Your task to perform on an android device: install app "DoorDash - Dasher" Image 0: 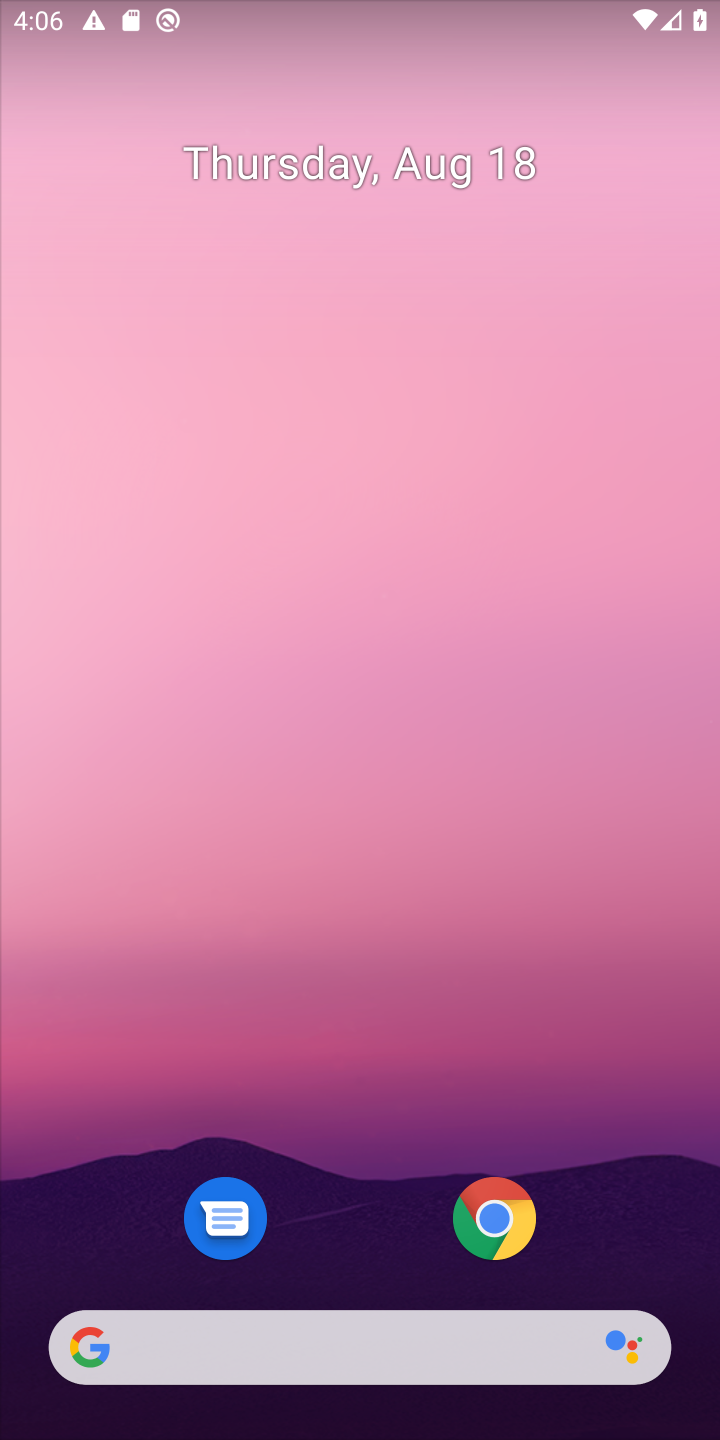
Step 0: drag from (325, 860) to (325, 487)
Your task to perform on an android device: install app "DoorDash - Dasher" Image 1: 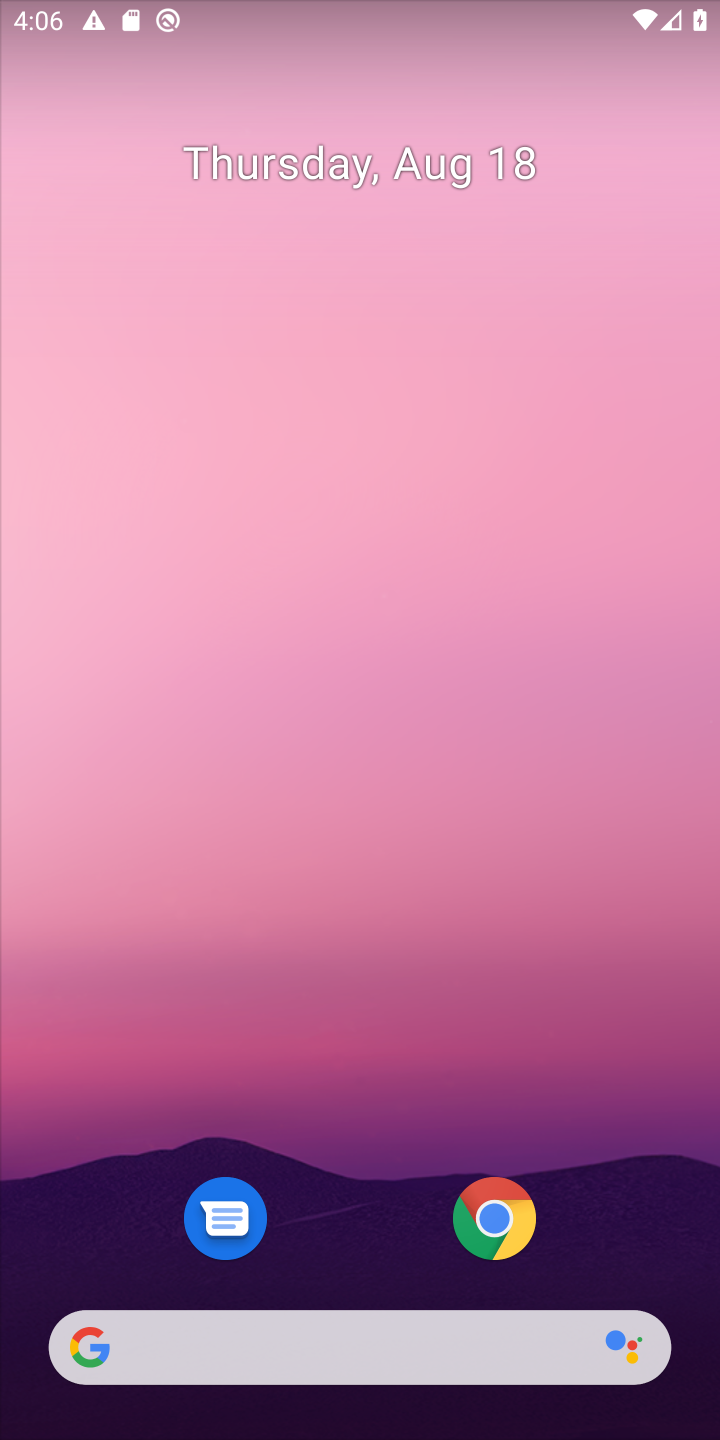
Step 1: drag from (310, 608) to (310, 236)
Your task to perform on an android device: install app "DoorDash - Dasher" Image 2: 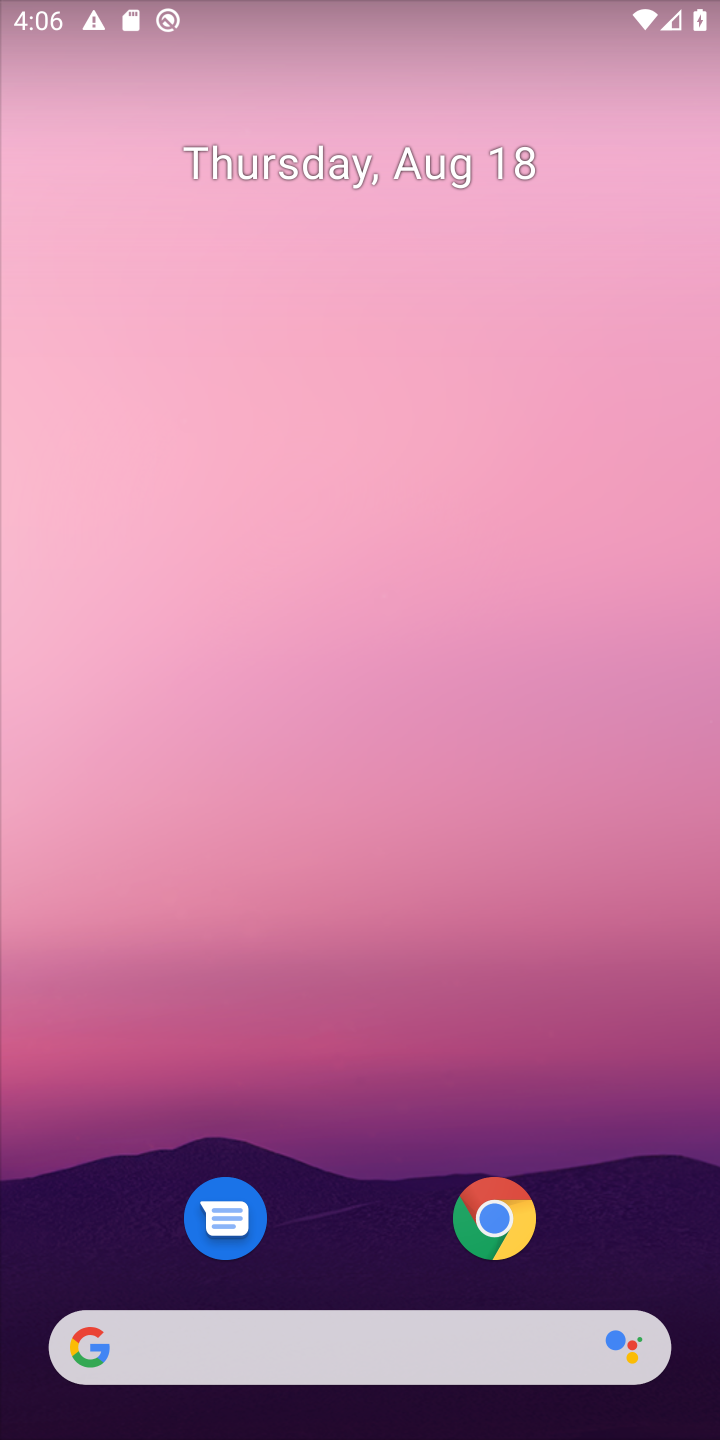
Step 2: drag from (371, 1159) to (385, 13)
Your task to perform on an android device: install app "DoorDash - Dasher" Image 3: 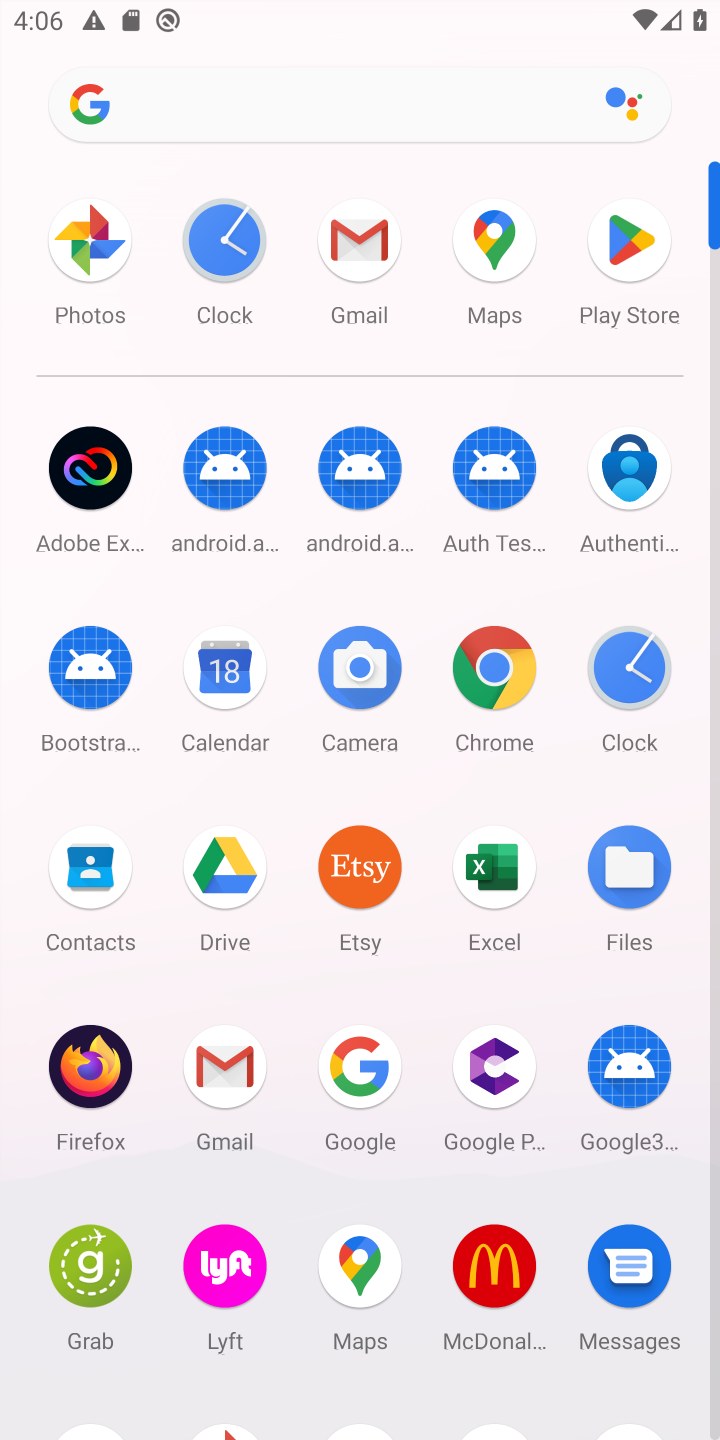
Step 3: click (593, 244)
Your task to perform on an android device: install app "DoorDash - Dasher" Image 4: 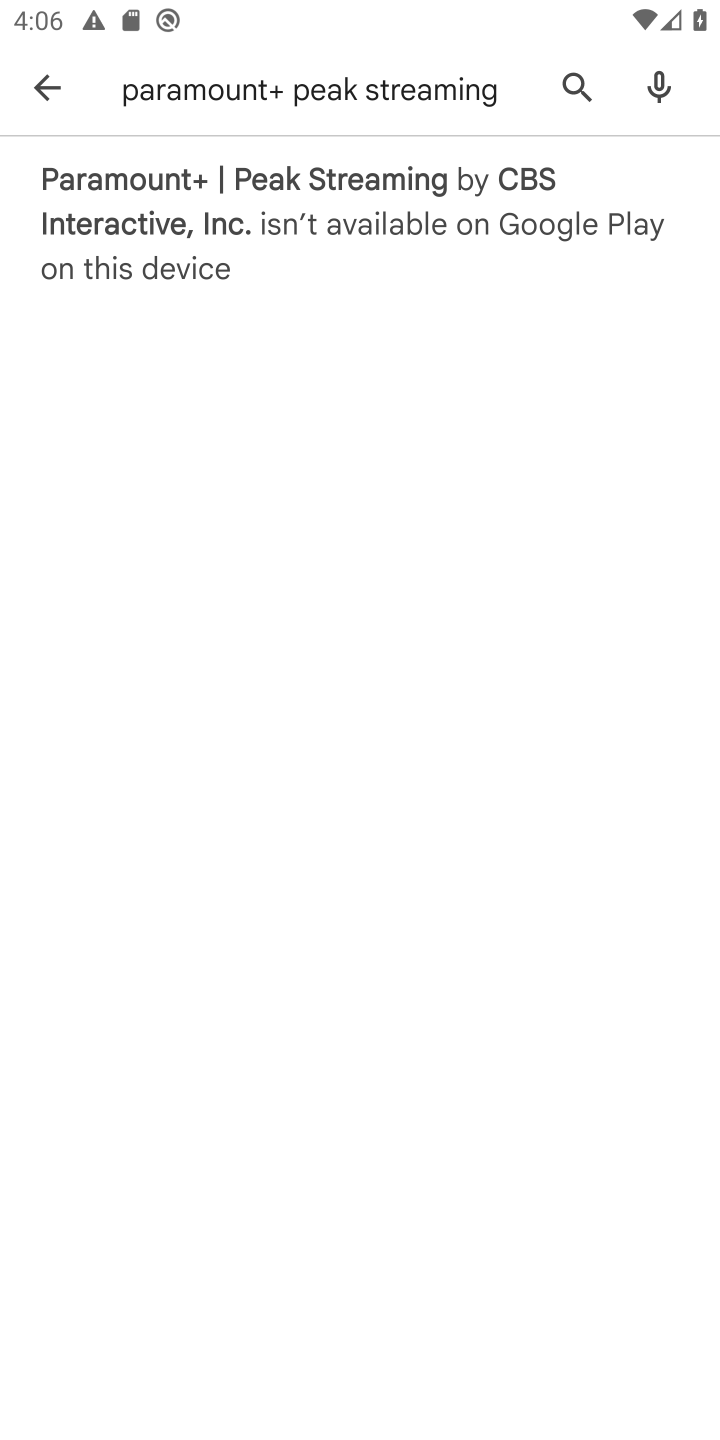
Step 4: click (551, 80)
Your task to perform on an android device: install app "DoorDash - Dasher" Image 5: 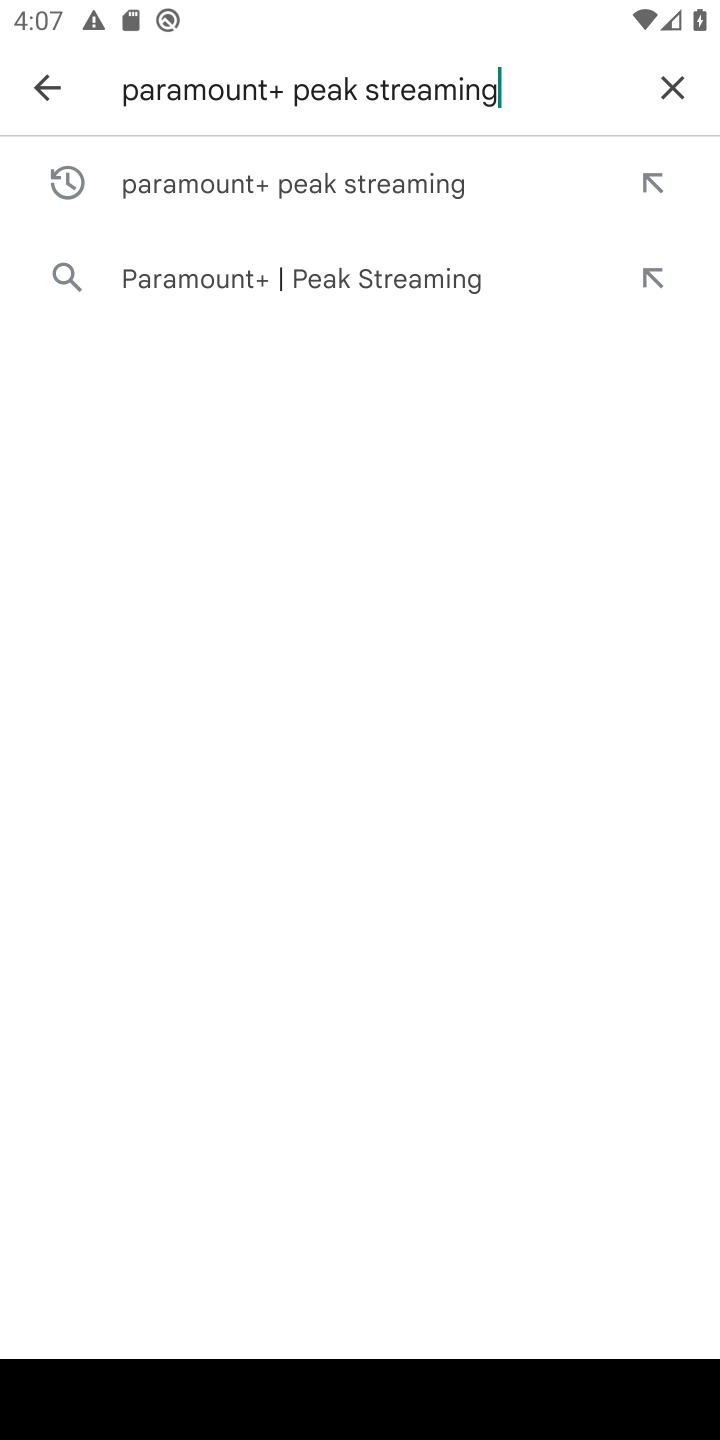
Step 5: click (661, 92)
Your task to perform on an android device: install app "DoorDash - Dasher" Image 6: 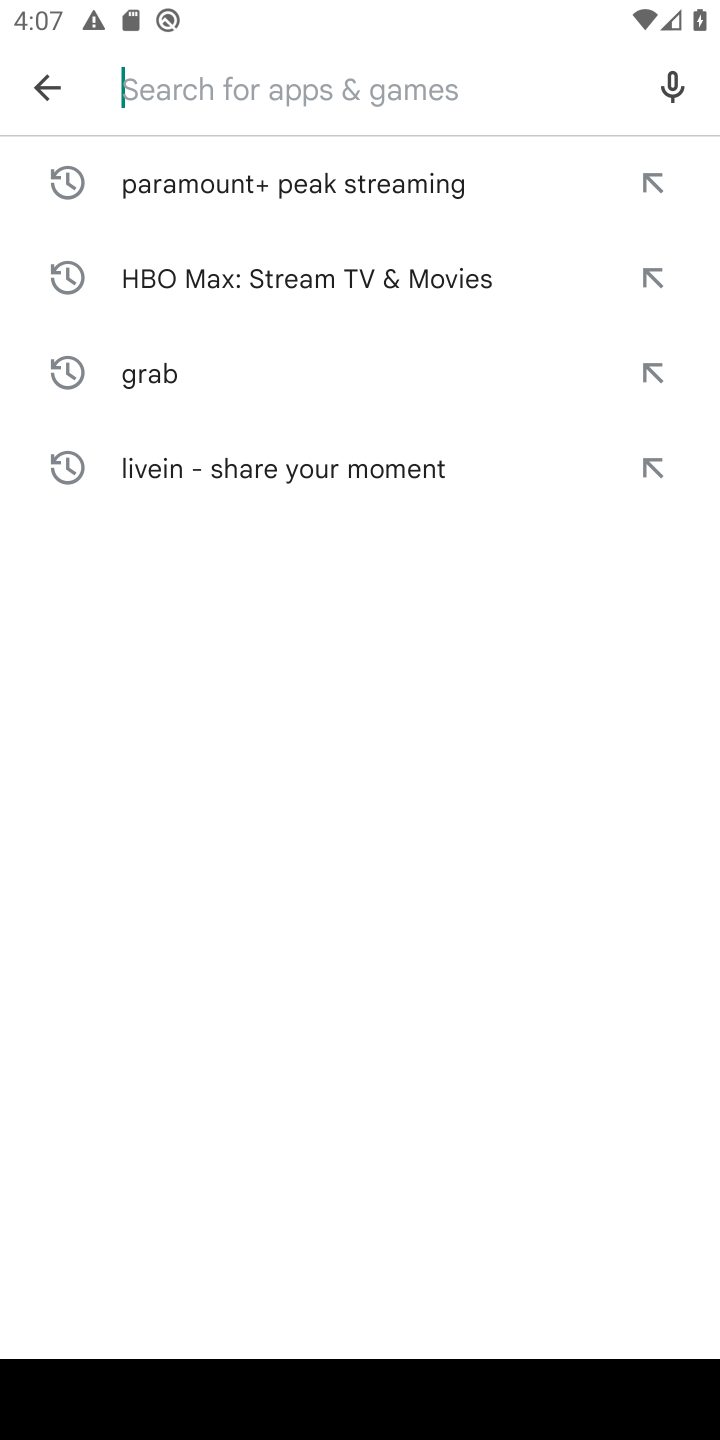
Step 6: type "DoorDash - Dasher"
Your task to perform on an android device: install app "DoorDash - Dasher" Image 7: 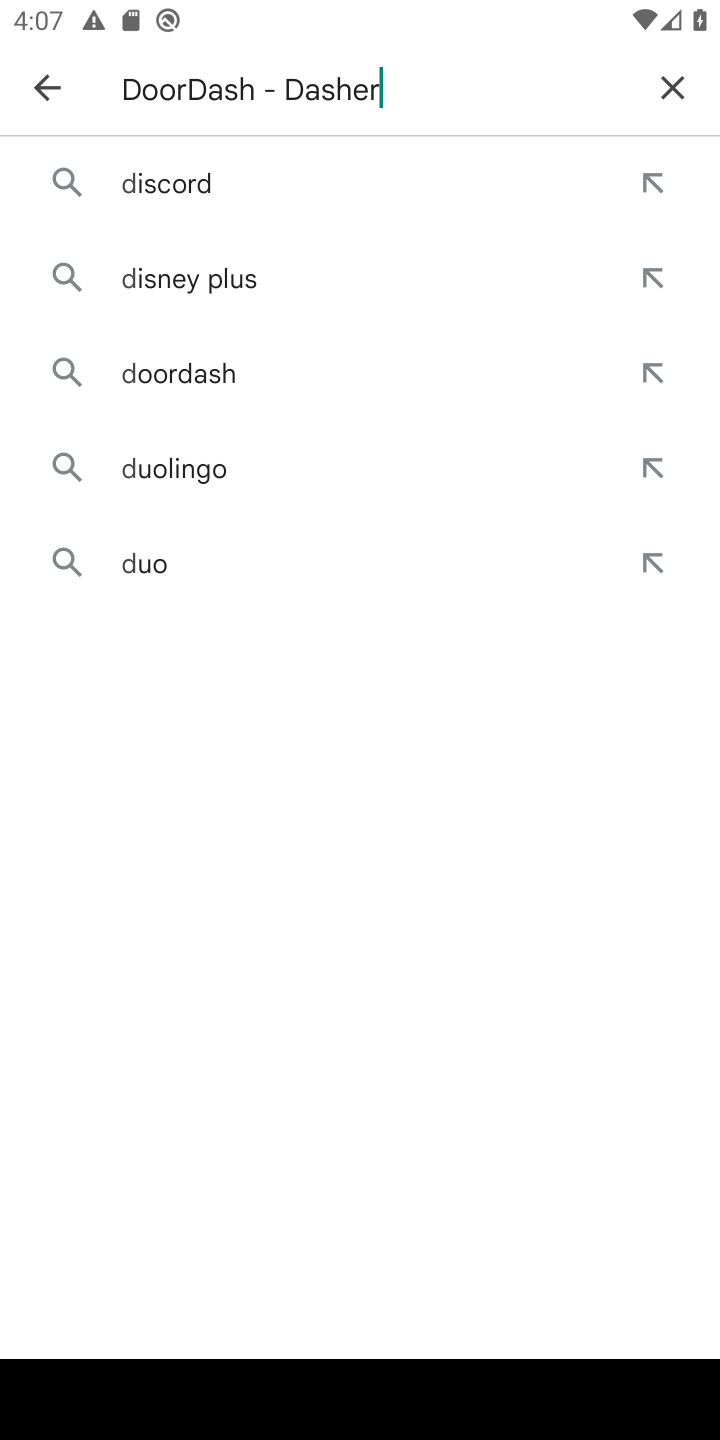
Step 7: type ""
Your task to perform on an android device: install app "DoorDash - Dasher" Image 8: 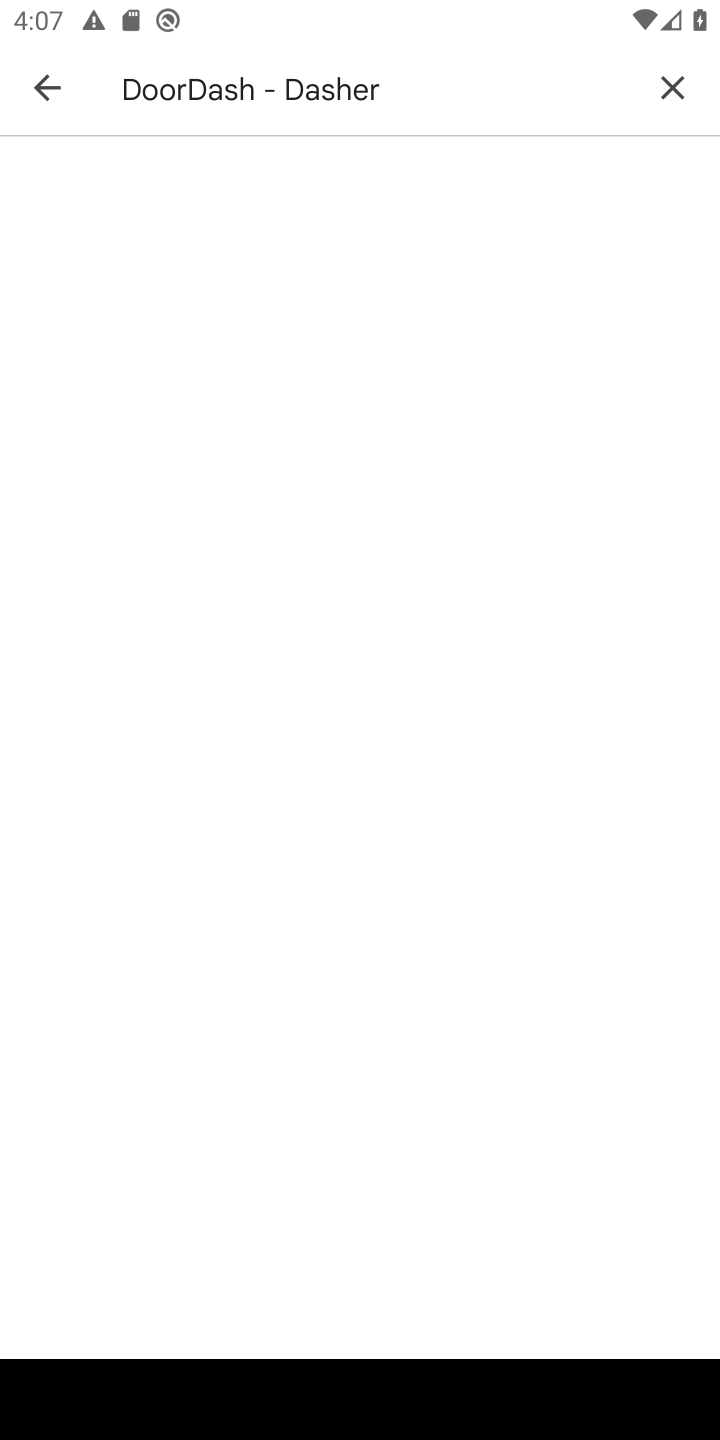
Step 8: task complete